Your task to perform on an android device: turn on javascript in the chrome app Image 0: 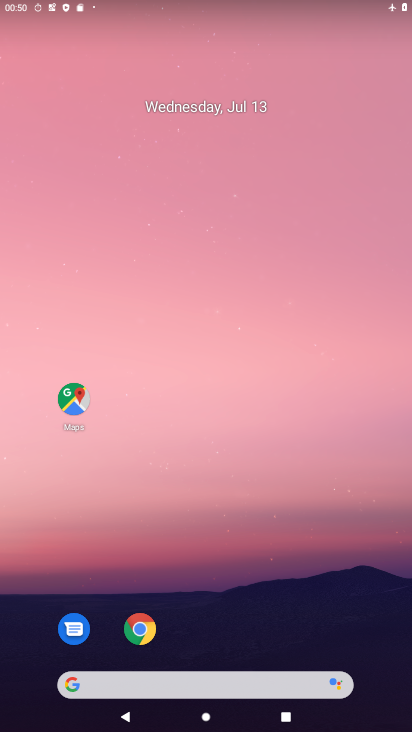
Step 0: click (156, 630)
Your task to perform on an android device: turn on javascript in the chrome app Image 1: 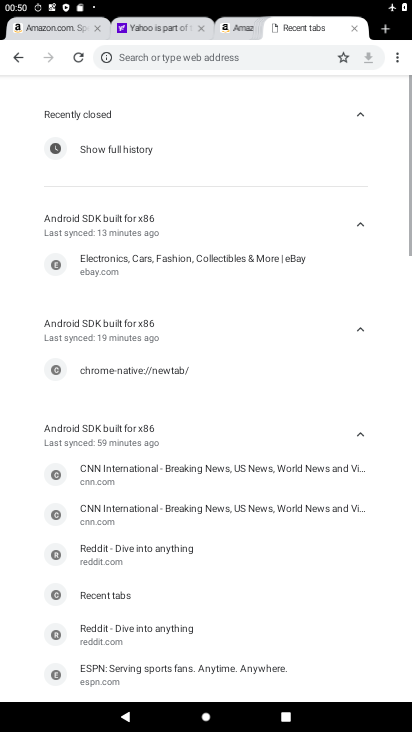
Step 1: click (394, 59)
Your task to perform on an android device: turn on javascript in the chrome app Image 2: 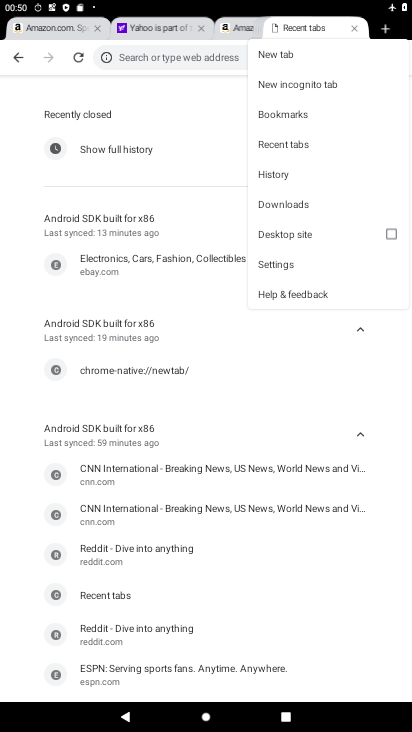
Step 2: click (295, 262)
Your task to perform on an android device: turn on javascript in the chrome app Image 3: 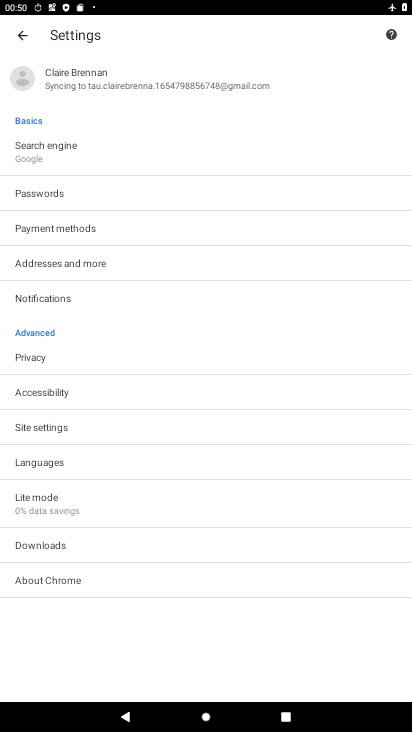
Step 3: click (88, 431)
Your task to perform on an android device: turn on javascript in the chrome app Image 4: 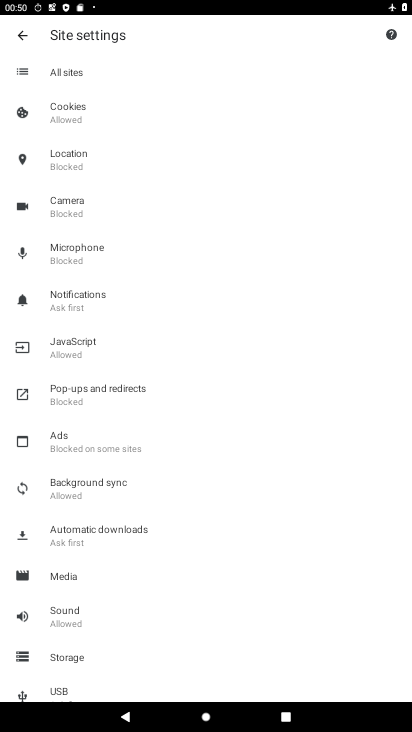
Step 4: click (121, 345)
Your task to perform on an android device: turn on javascript in the chrome app Image 5: 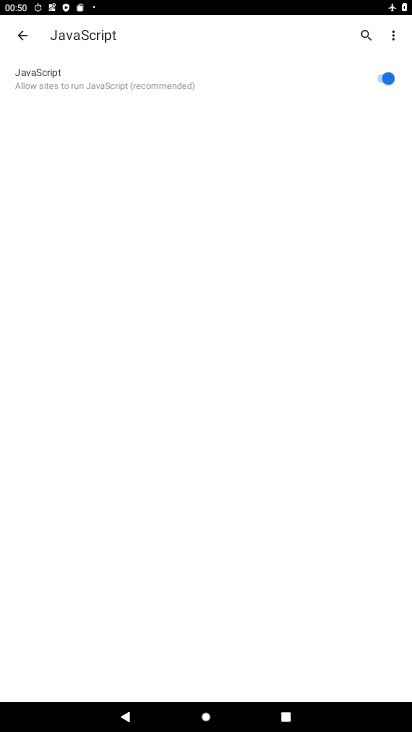
Step 5: task complete